Your task to perform on an android device: Go to Google maps Image 0: 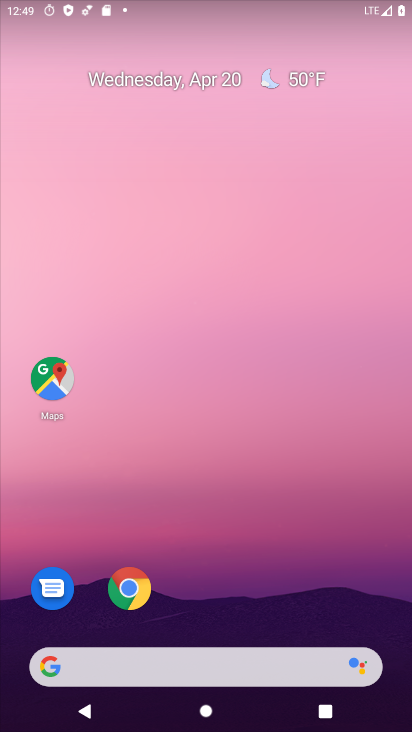
Step 0: drag from (178, 3) to (233, 13)
Your task to perform on an android device: Go to Google maps Image 1: 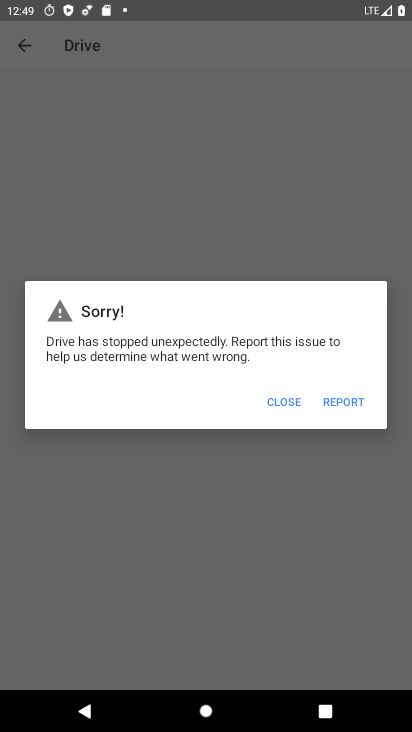
Step 1: press home button
Your task to perform on an android device: Go to Google maps Image 2: 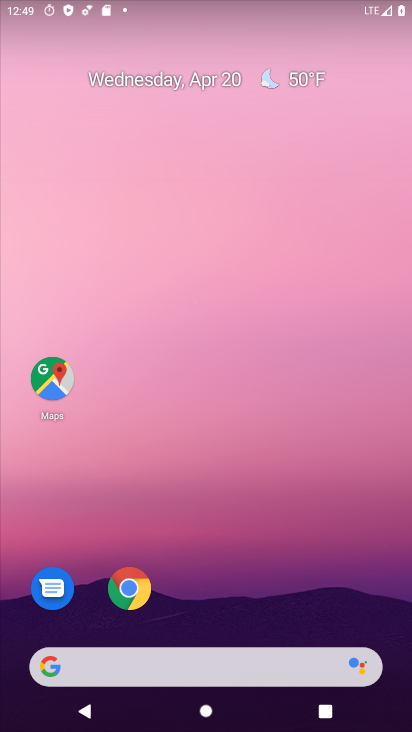
Step 2: drag from (216, 629) to (191, 60)
Your task to perform on an android device: Go to Google maps Image 3: 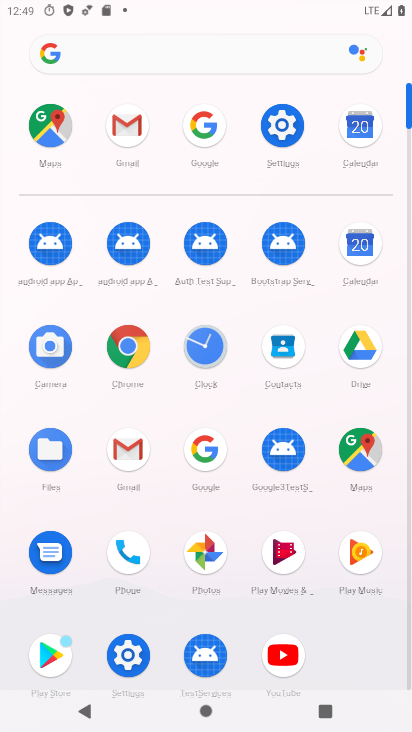
Step 3: click (360, 446)
Your task to perform on an android device: Go to Google maps Image 4: 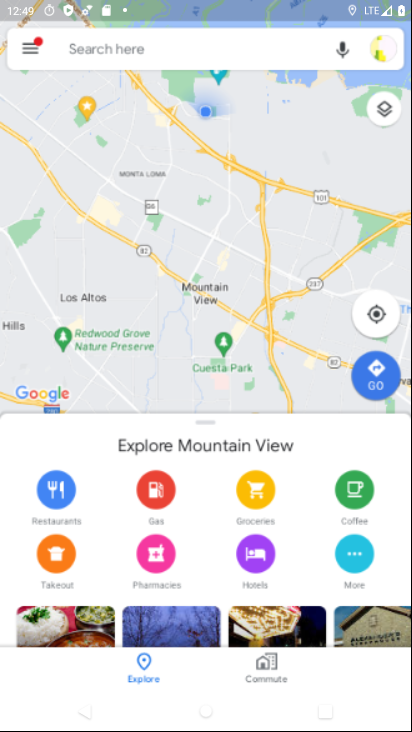
Step 4: task complete